Your task to perform on an android device: Search for vegetarian restaurants on Maps Image 0: 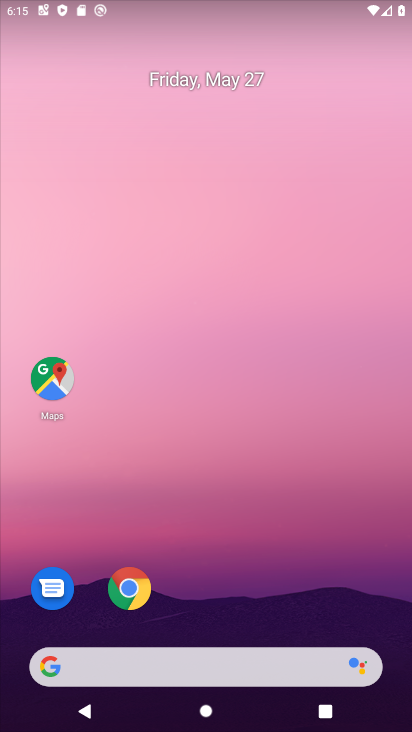
Step 0: click (50, 376)
Your task to perform on an android device: Search for vegetarian restaurants on Maps Image 1: 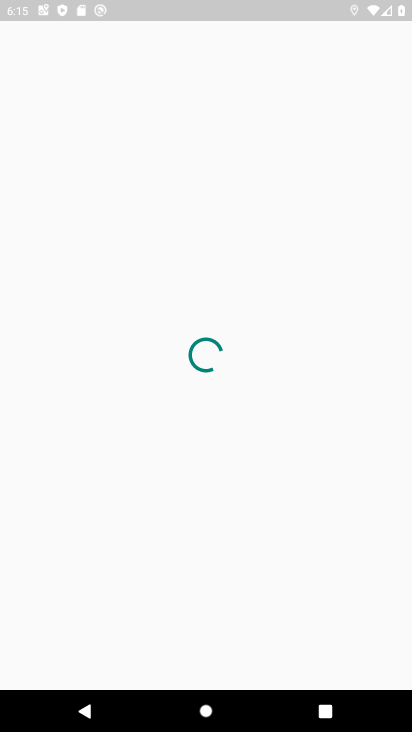
Step 1: click (338, 46)
Your task to perform on an android device: Search for vegetarian restaurants on Maps Image 2: 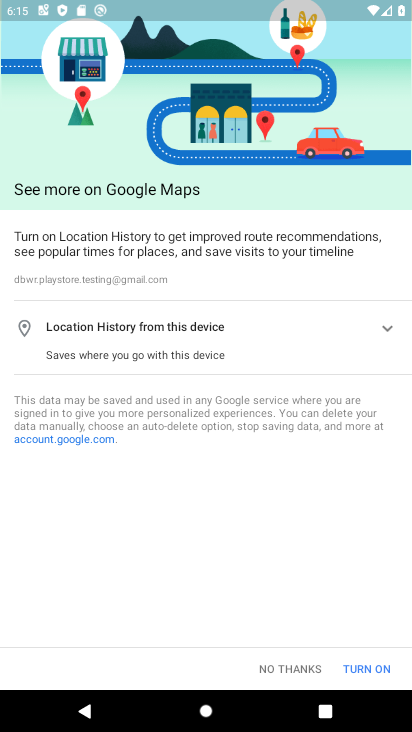
Step 2: click (285, 672)
Your task to perform on an android device: Search for vegetarian restaurants on Maps Image 3: 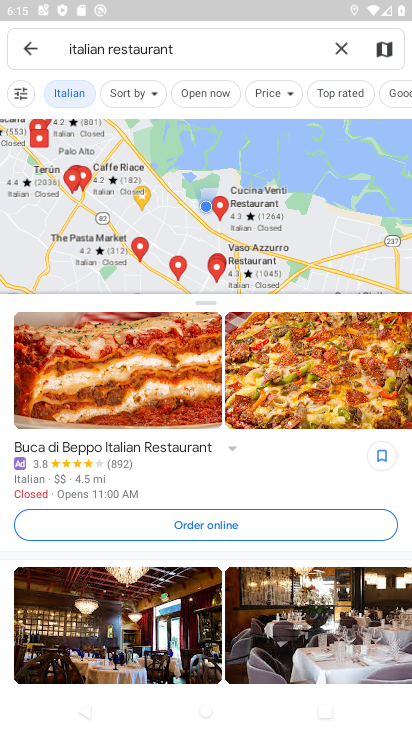
Step 3: click (339, 42)
Your task to perform on an android device: Search for vegetarian restaurants on Maps Image 4: 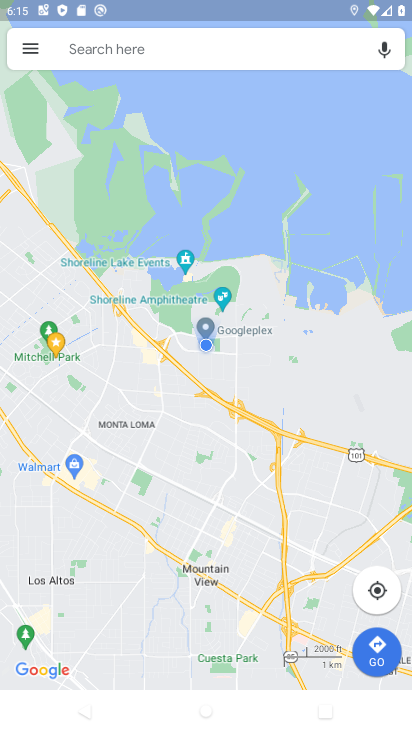
Step 4: click (336, 49)
Your task to perform on an android device: Search for vegetarian restaurants on Maps Image 5: 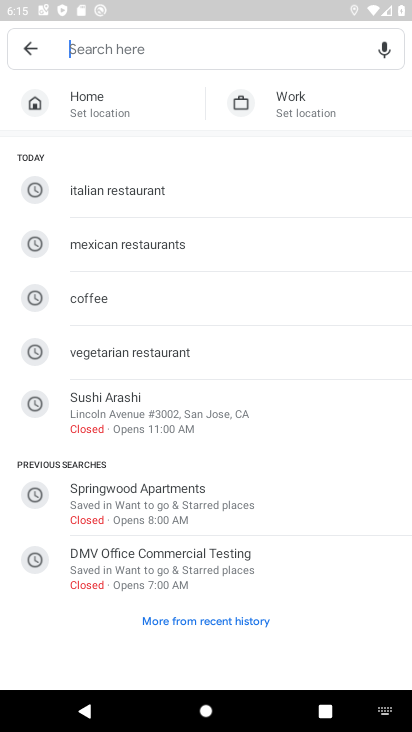
Step 5: drag from (134, 721) to (318, 716)
Your task to perform on an android device: Search for vegetarian restaurants on Maps Image 6: 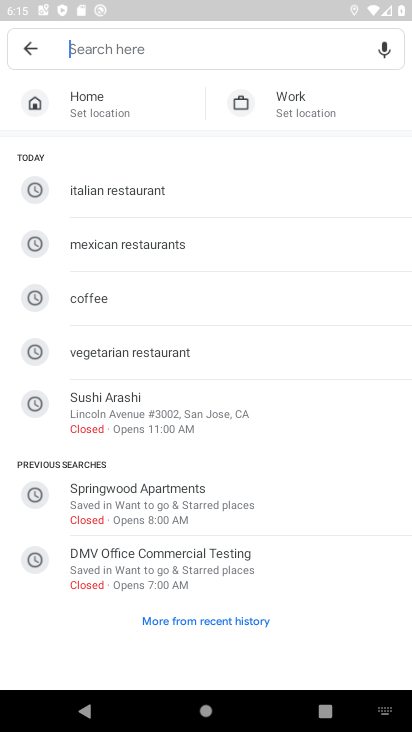
Step 6: type "vegetarian restaurants "
Your task to perform on an android device: Search for vegetarian restaurants on Maps Image 7: 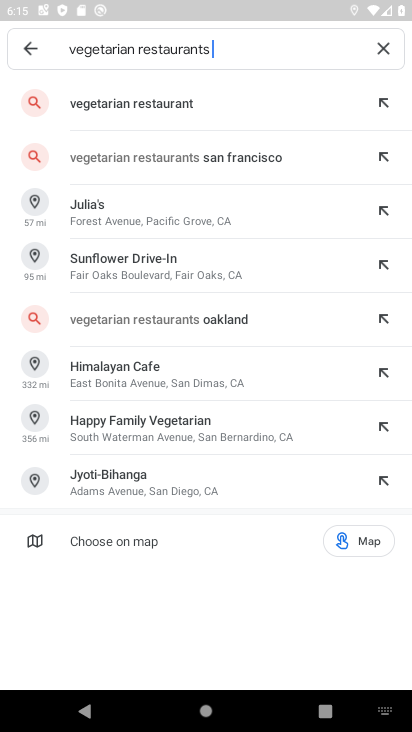
Step 7: click (111, 98)
Your task to perform on an android device: Search for vegetarian restaurants on Maps Image 8: 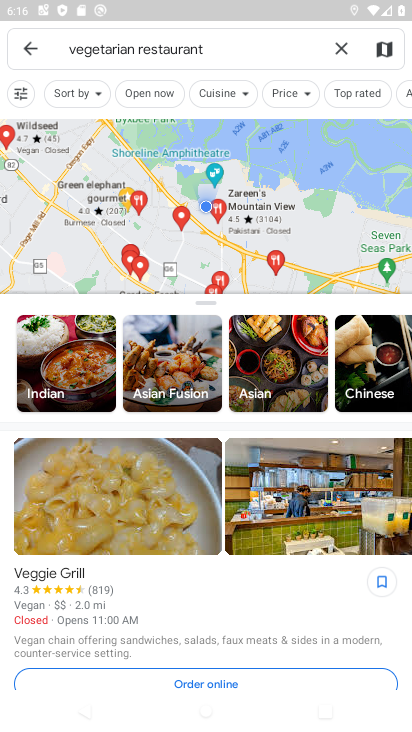
Step 8: task complete